Your task to perform on an android device: toggle translation in the chrome app Image 0: 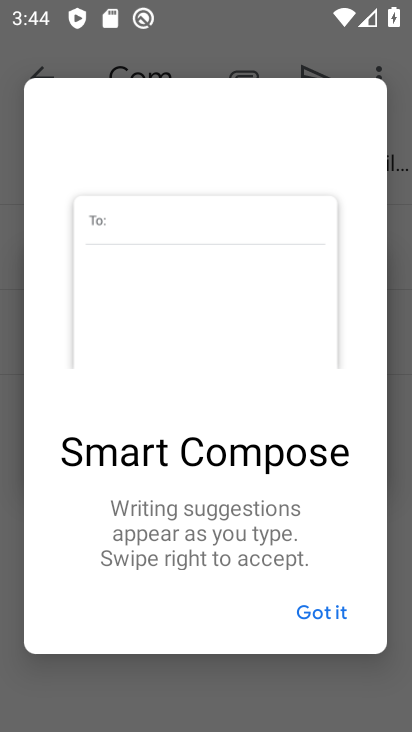
Step 0: press back button
Your task to perform on an android device: toggle translation in the chrome app Image 1: 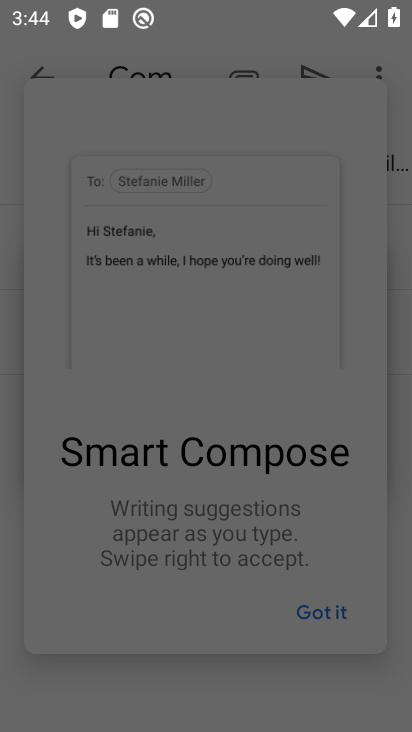
Step 1: press home button
Your task to perform on an android device: toggle translation in the chrome app Image 2: 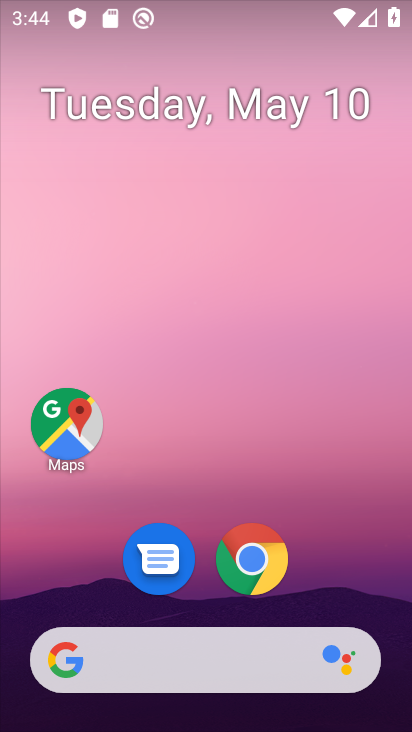
Step 2: click (260, 572)
Your task to perform on an android device: toggle translation in the chrome app Image 3: 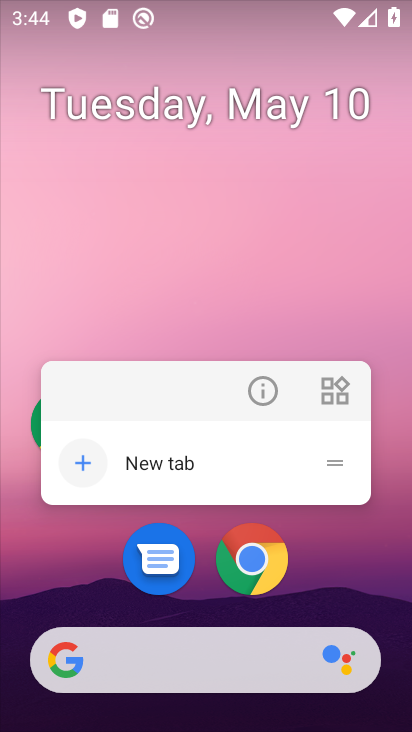
Step 3: click (221, 556)
Your task to perform on an android device: toggle translation in the chrome app Image 4: 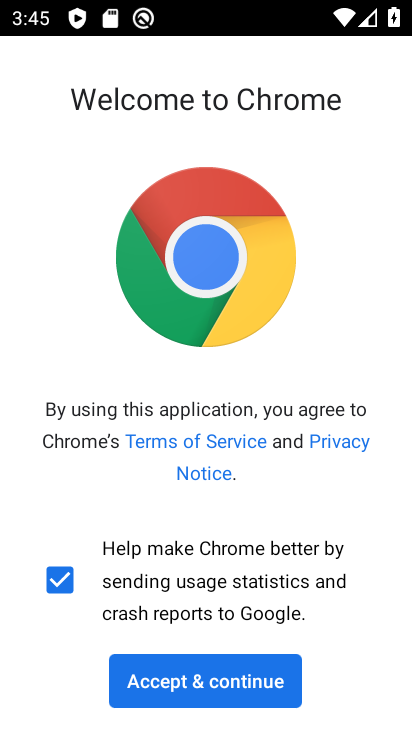
Step 4: click (243, 681)
Your task to perform on an android device: toggle translation in the chrome app Image 5: 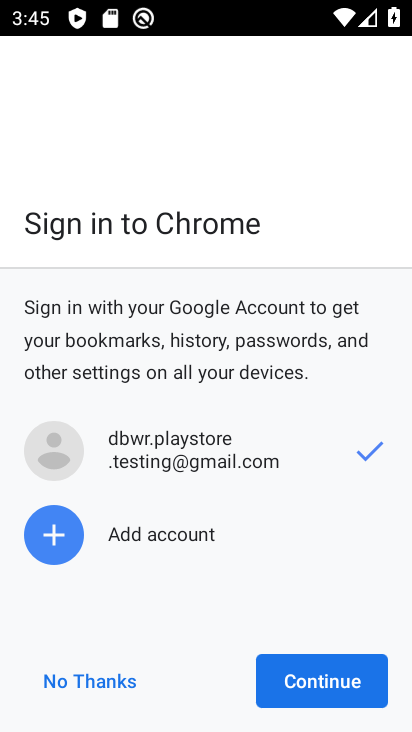
Step 5: click (313, 674)
Your task to perform on an android device: toggle translation in the chrome app Image 6: 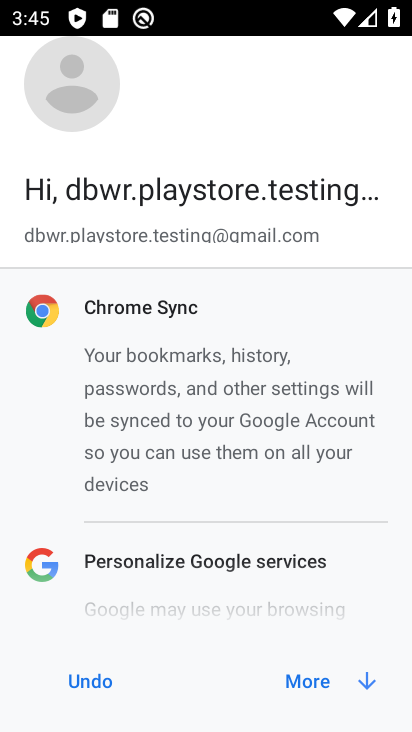
Step 6: click (314, 676)
Your task to perform on an android device: toggle translation in the chrome app Image 7: 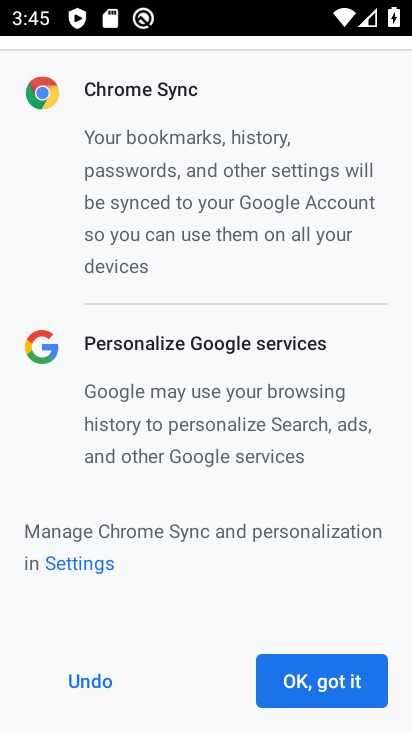
Step 7: click (317, 677)
Your task to perform on an android device: toggle translation in the chrome app Image 8: 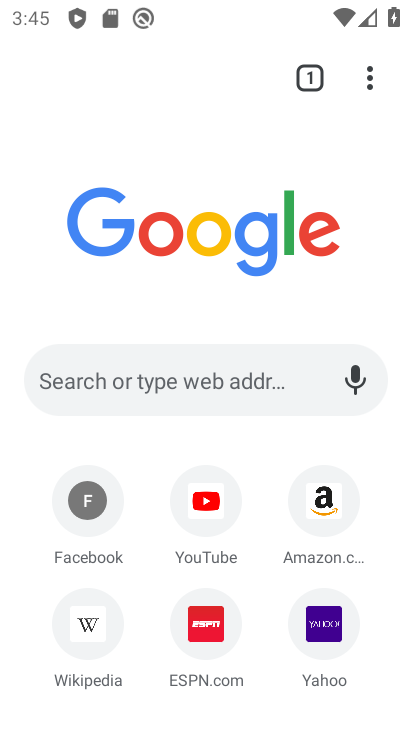
Step 8: drag from (372, 93) to (170, 611)
Your task to perform on an android device: toggle translation in the chrome app Image 9: 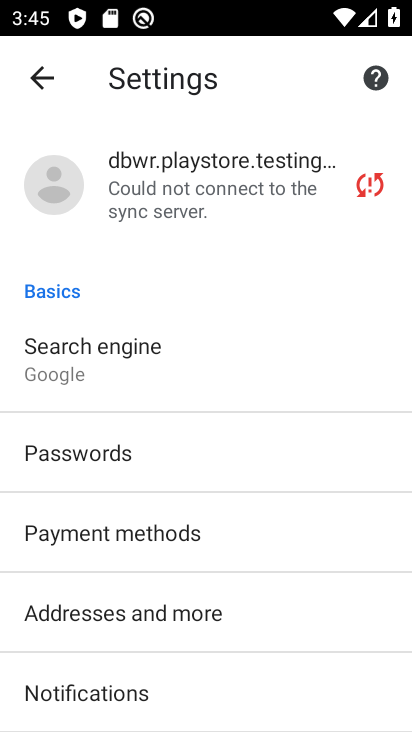
Step 9: drag from (138, 624) to (241, 261)
Your task to perform on an android device: toggle translation in the chrome app Image 10: 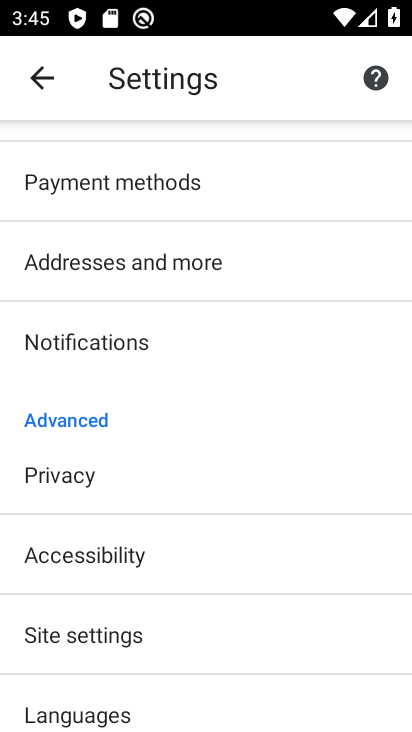
Step 10: drag from (195, 633) to (276, 344)
Your task to perform on an android device: toggle translation in the chrome app Image 11: 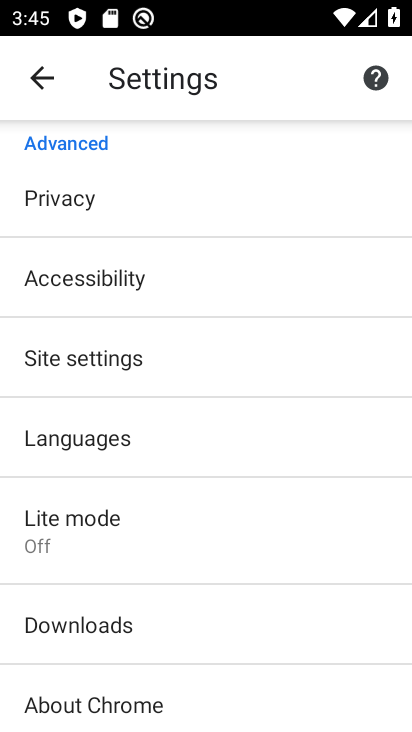
Step 11: click (134, 446)
Your task to perform on an android device: toggle translation in the chrome app Image 12: 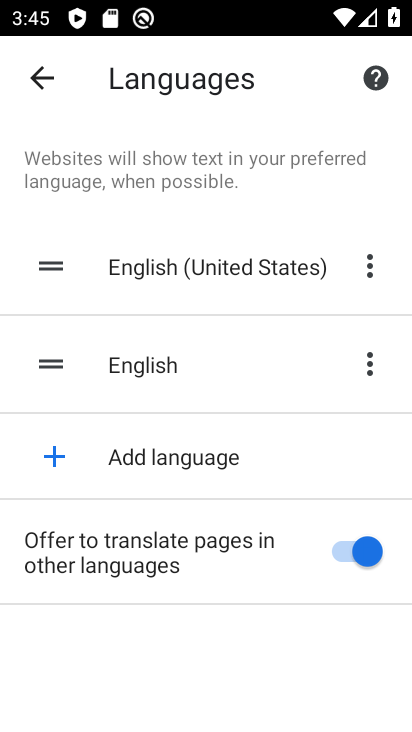
Step 12: click (354, 543)
Your task to perform on an android device: toggle translation in the chrome app Image 13: 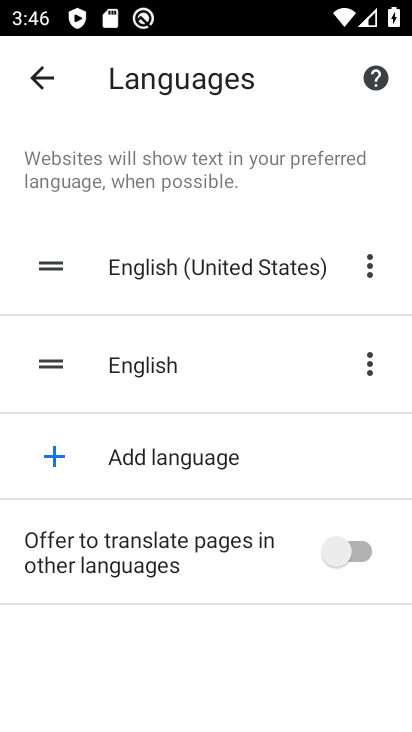
Step 13: task complete